Your task to perform on an android device: Go to sound settings Image 0: 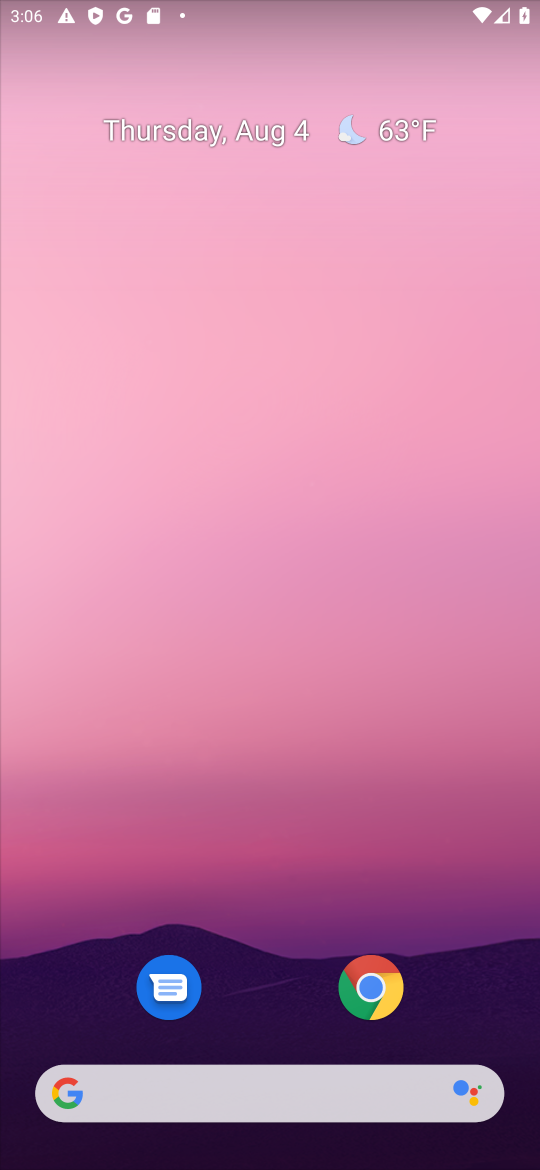
Step 0: drag from (261, 992) to (284, 148)
Your task to perform on an android device: Go to sound settings Image 1: 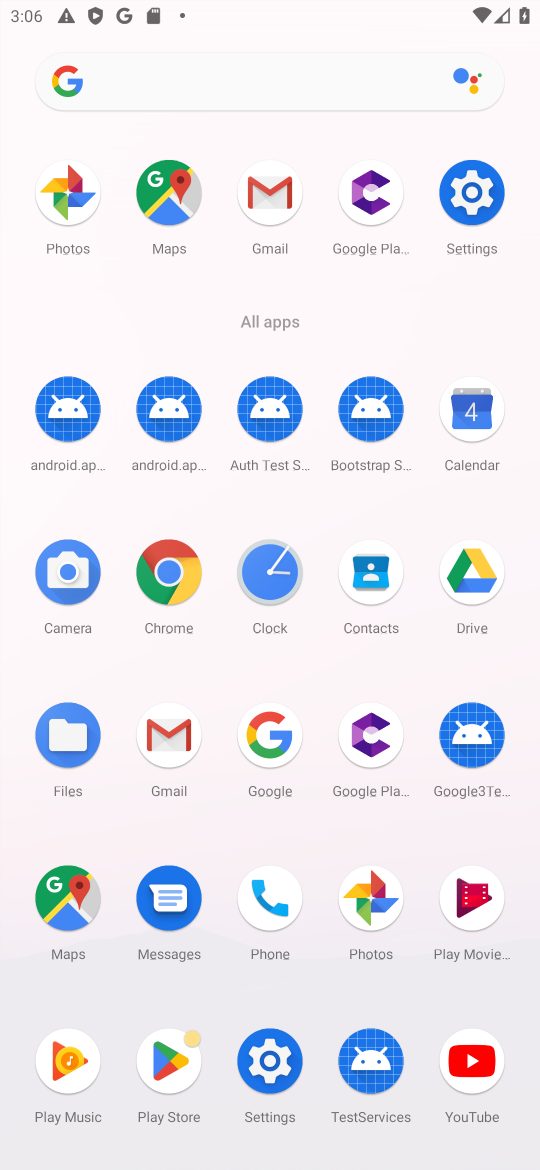
Step 1: click (475, 182)
Your task to perform on an android device: Go to sound settings Image 2: 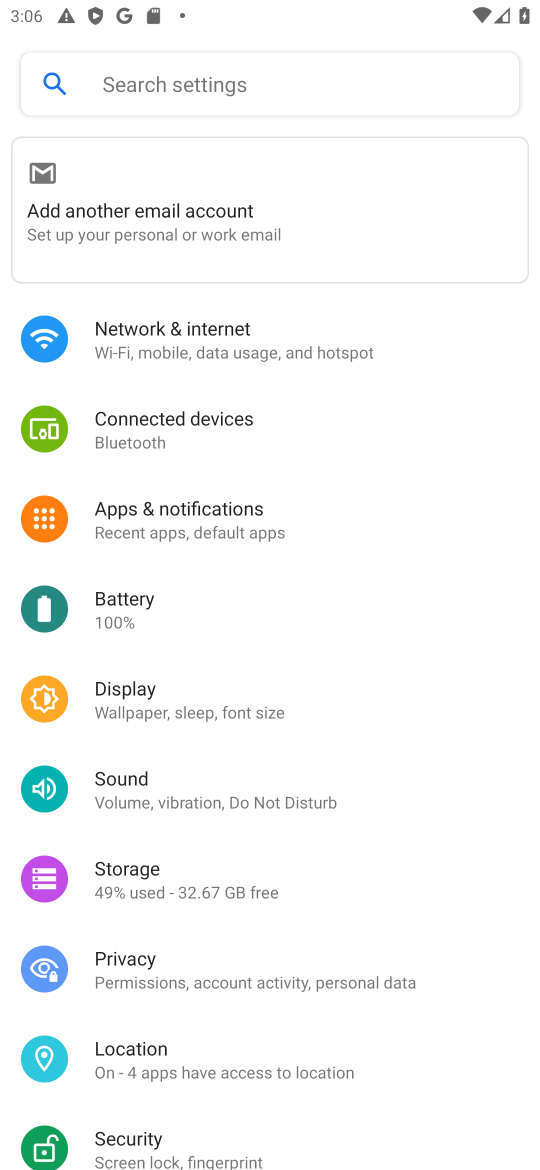
Step 2: click (168, 793)
Your task to perform on an android device: Go to sound settings Image 3: 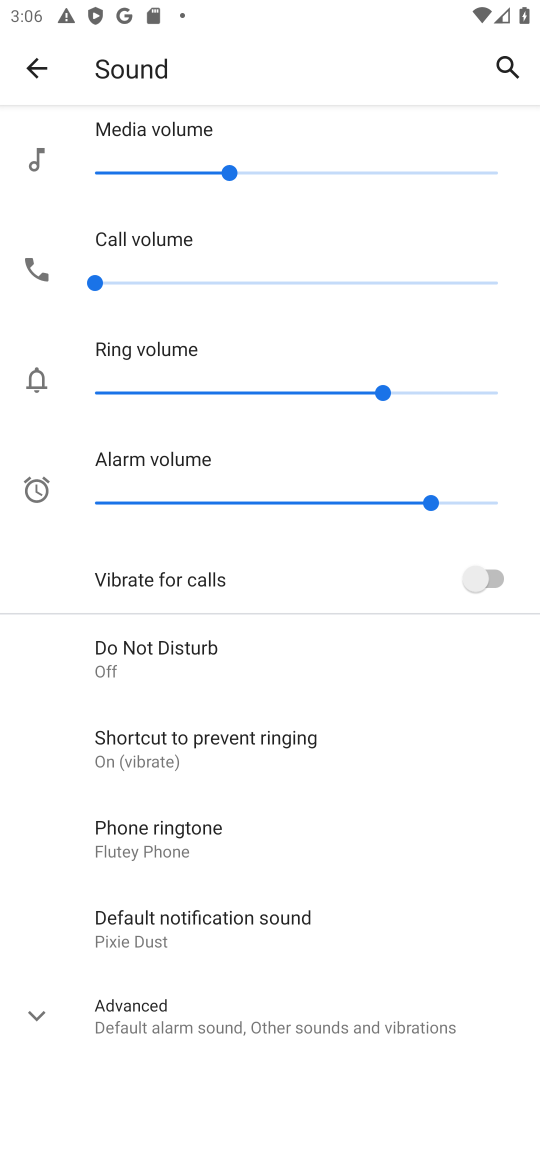
Step 3: task complete